Your task to perform on an android device: set the stopwatch Image 0: 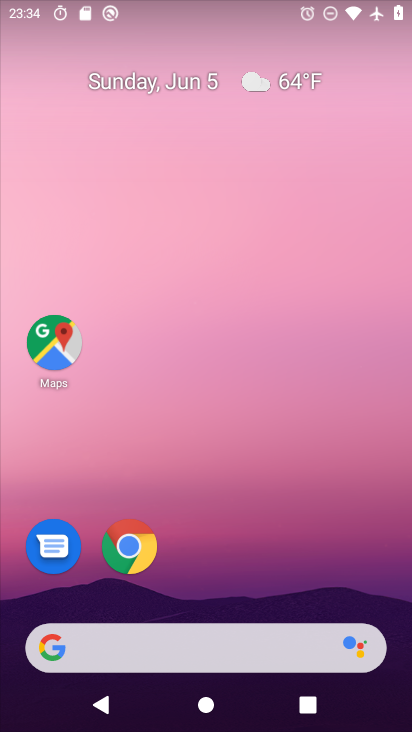
Step 0: drag from (195, 574) to (275, 156)
Your task to perform on an android device: set the stopwatch Image 1: 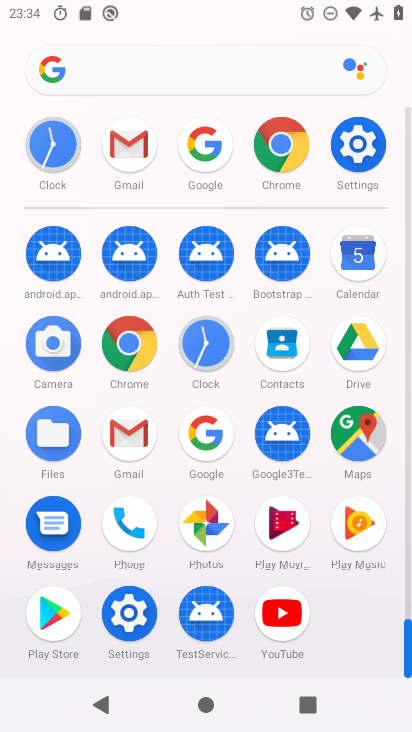
Step 1: click (197, 351)
Your task to perform on an android device: set the stopwatch Image 2: 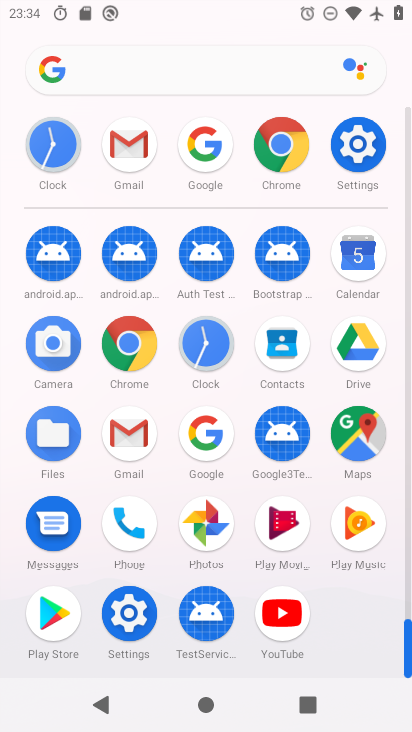
Step 2: click (202, 351)
Your task to perform on an android device: set the stopwatch Image 3: 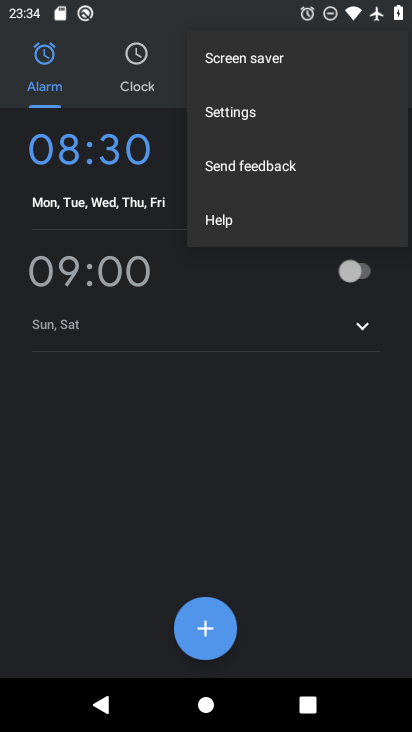
Step 3: click (251, 106)
Your task to perform on an android device: set the stopwatch Image 4: 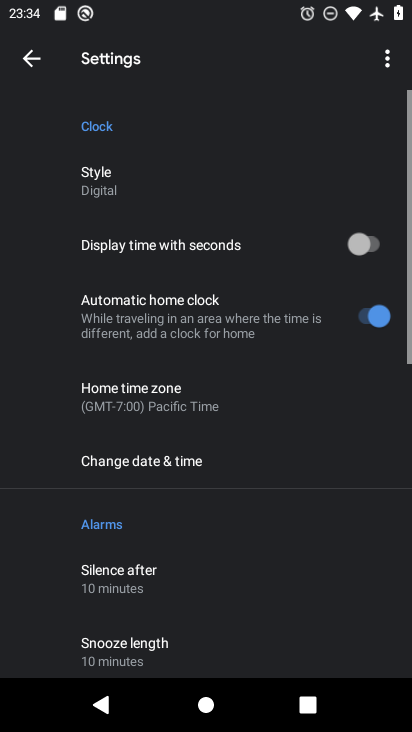
Step 4: click (14, 50)
Your task to perform on an android device: set the stopwatch Image 5: 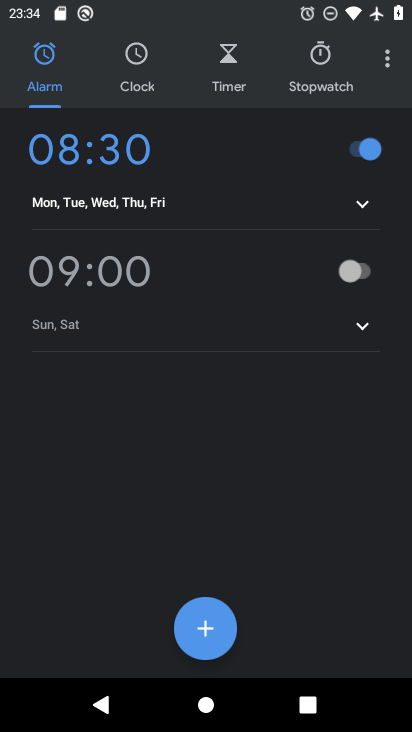
Step 5: click (323, 65)
Your task to perform on an android device: set the stopwatch Image 6: 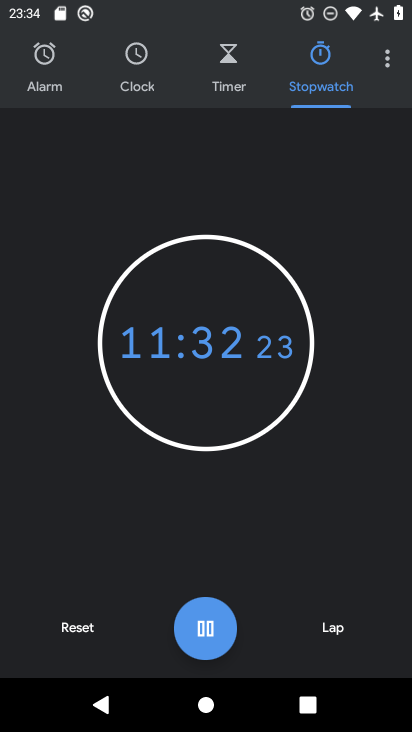
Step 6: click (67, 635)
Your task to perform on an android device: set the stopwatch Image 7: 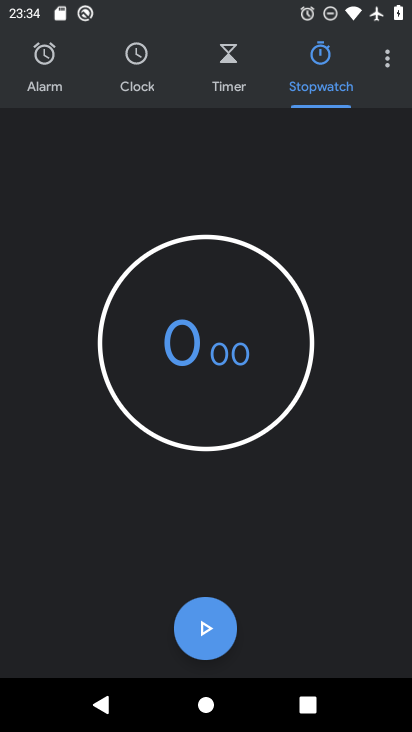
Step 7: drag from (264, 502) to (302, 264)
Your task to perform on an android device: set the stopwatch Image 8: 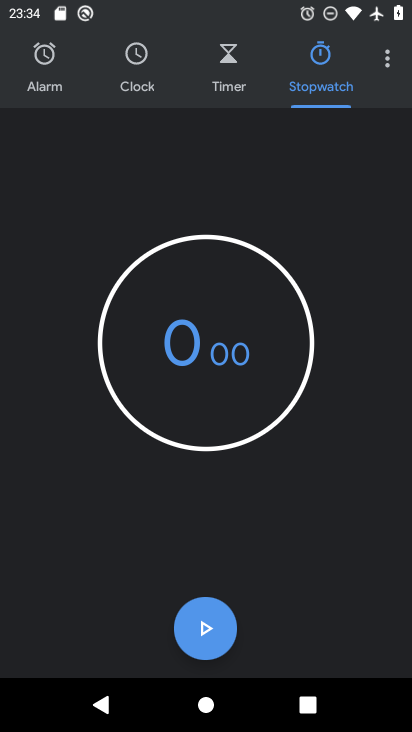
Step 8: click (198, 639)
Your task to perform on an android device: set the stopwatch Image 9: 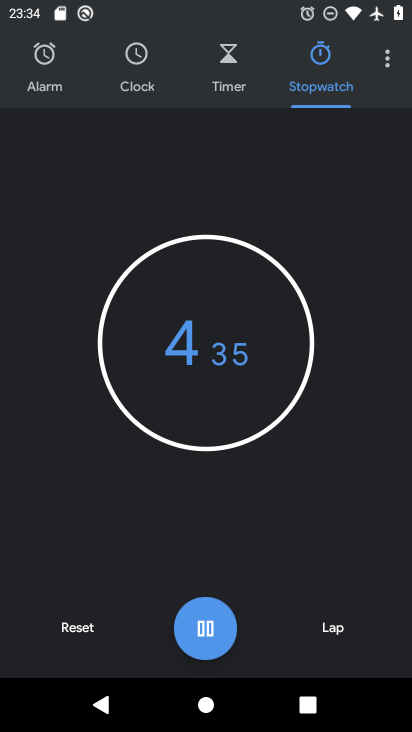
Step 9: task complete